Your task to perform on an android device: Check the weather Image 0: 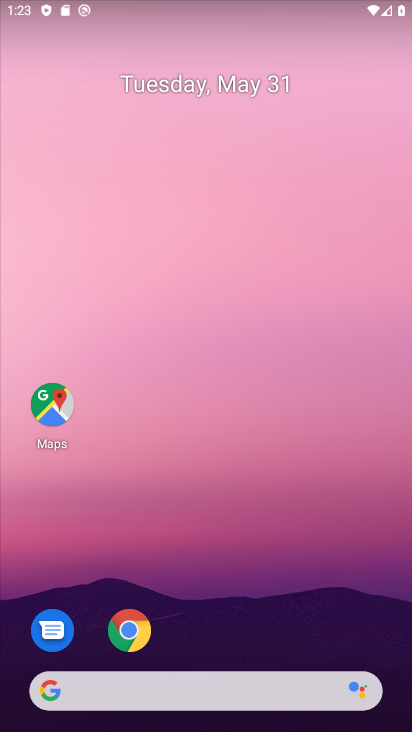
Step 0: drag from (267, 603) to (189, 50)
Your task to perform on an android device: Check the weather Image 1: 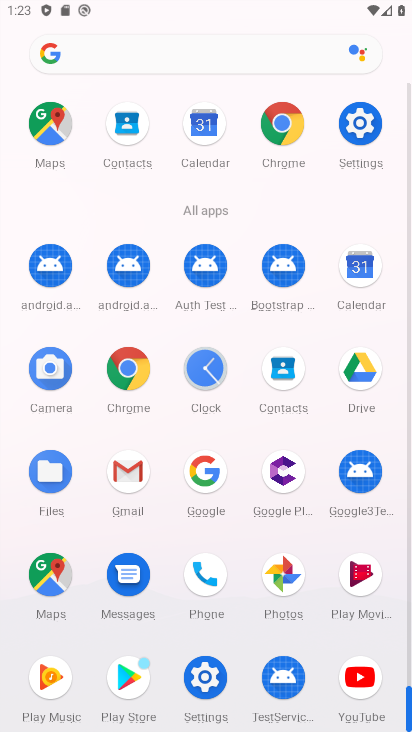
Step 1: drag from (6, 548) to (17, 192)
Your task to perform on an android device: Check the weather Image 2: 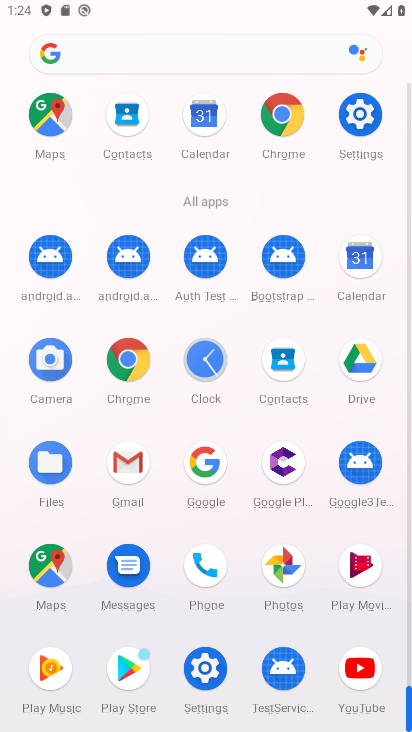
Step 2: drag from (11, 357) to (18, 157)
Your task to perform on an android device: Check the weather Image 3: 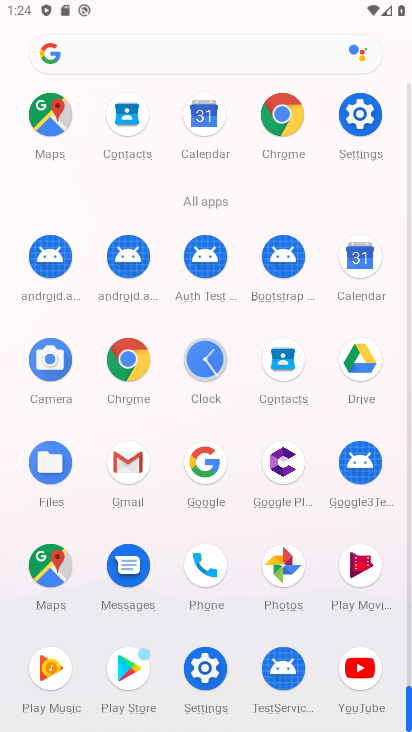
Step 3: click (124, 359)
Your task to perform on an android device: Check the weather Image 4: 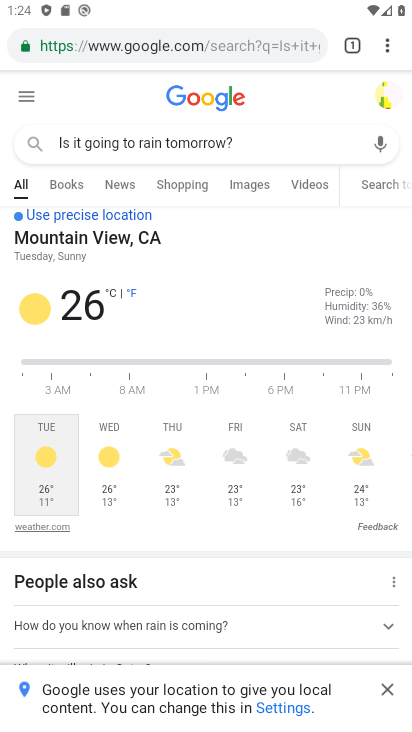
Step 4: click (192, 41)
Your task to perform on an android device: Check the weather Image 5: 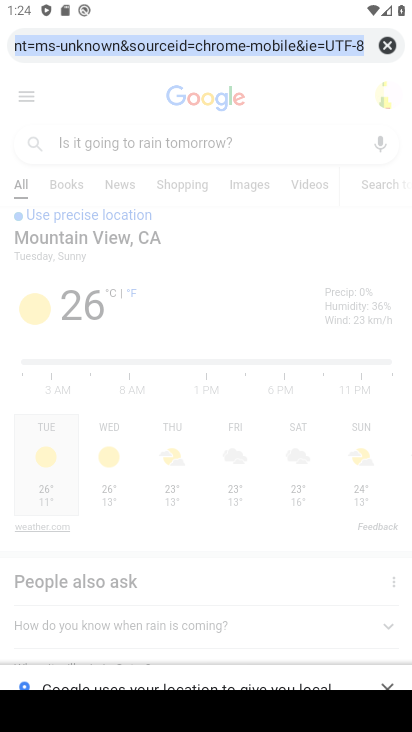
Step 5: click (384, 44)
Your task to perform on an android device: Check the weather Image 6: 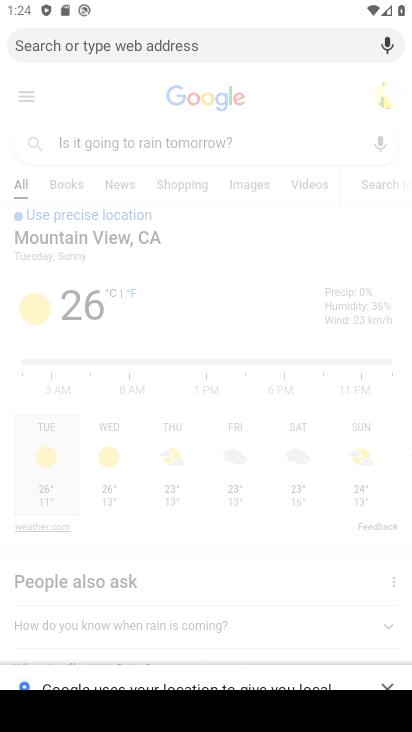
Step 6: type "Check the weather"
Your task to perform on an android device: Check the weather Image 7: 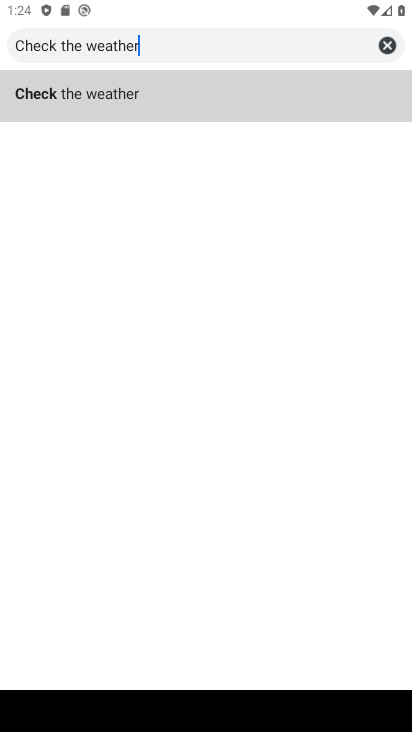
Step 7: type ""
Your task to perform on an android device: Check the weather Image 8: 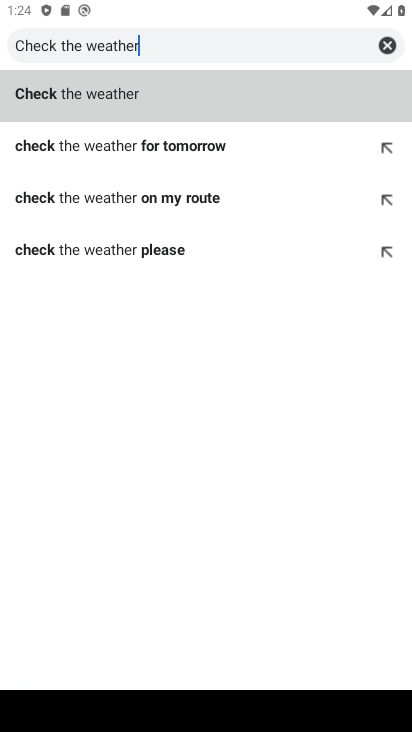
Step 8: click (203, 105)
Your task to perform on an android device: Check the weather Image 9: 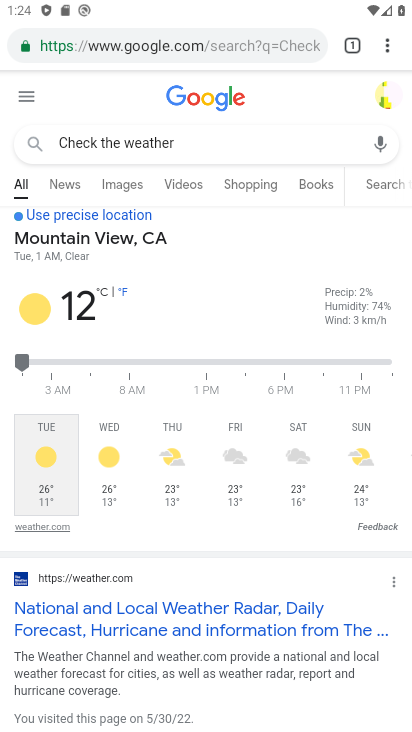
Step 9: task complete